Your task to perform on an android device: open wifi settings Image 0: 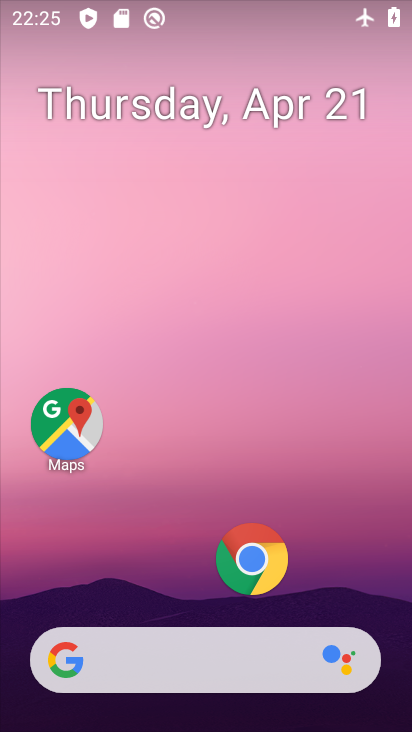
Step 0: drag from (135, 523) to (184, 92)
Your task to perform on an android device: open wifi settings Image 1: 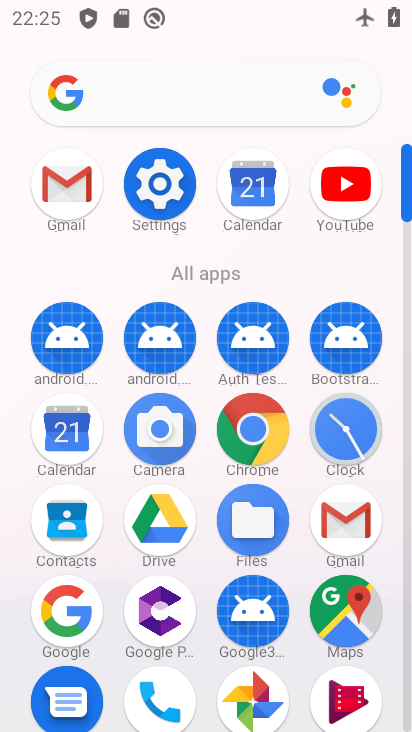
Step 1: click (160, 183)
Your task to perform on an android device: open wifi settings Image 2: 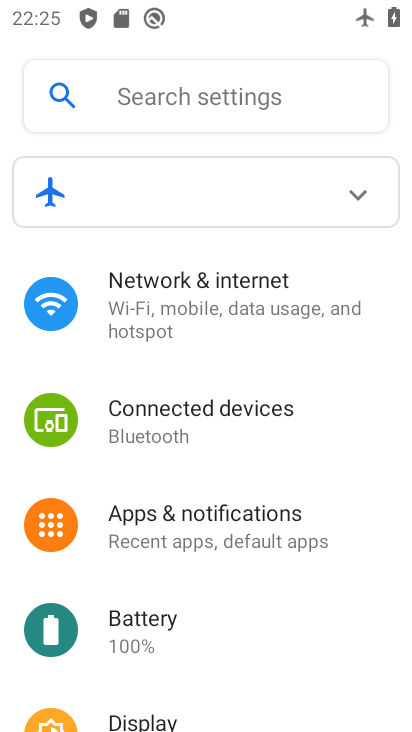
Step 2: click (162, 289)
Your task to perform on an android device: open wifi settings Image 3: 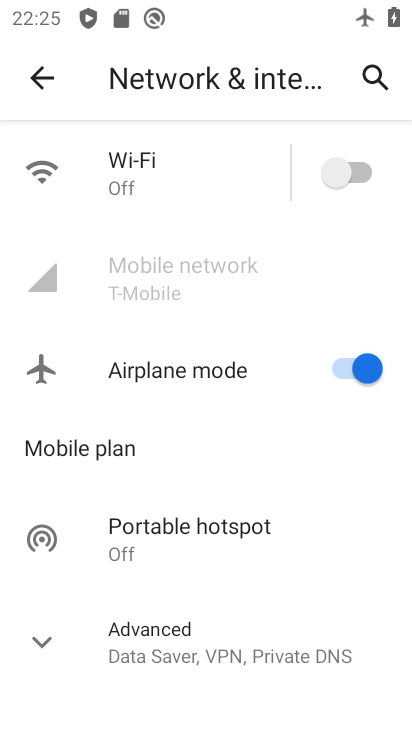
Step 3: click (144, 183)
Your task to perform on an android device: open wifi settings Image 4: 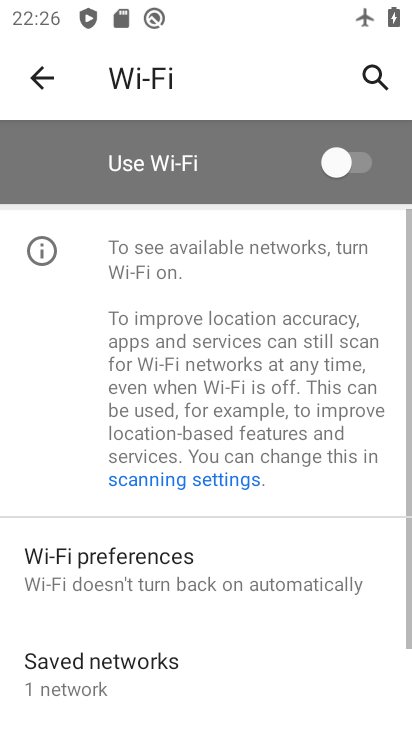
Step 4: task complete